Your task to perform on an android device: Open accessibility settings Image 0: 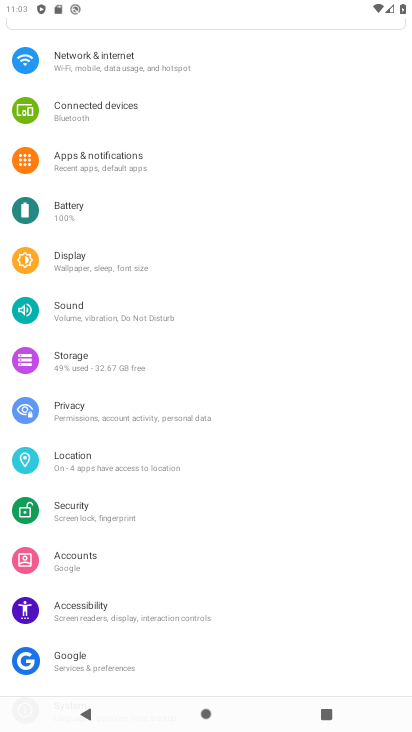
Step 0: drag from (198, 323) to (391, 579)
Your task to perform on an android device: Open accessibility settings Image 1: 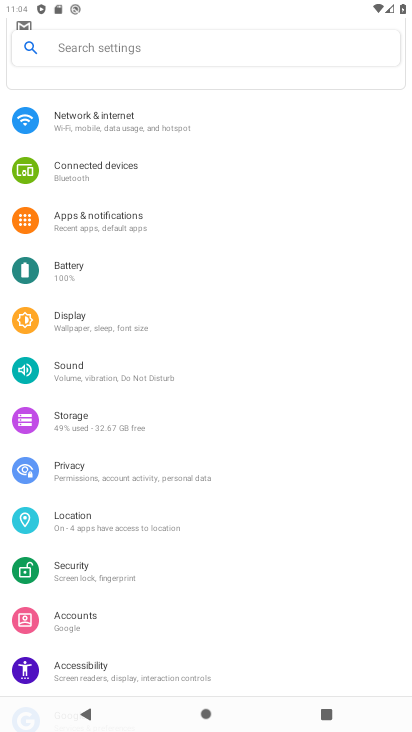
Step 1: click (86, 665)
Your task to perform on an android device: Open accessibility settings Image 2: 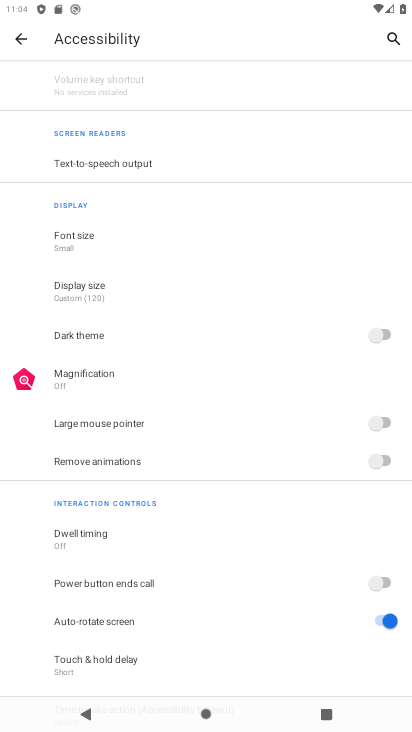
Step 2: task complete